Your task to perform on an android device: toggle data saver in the chrome app Image 0: 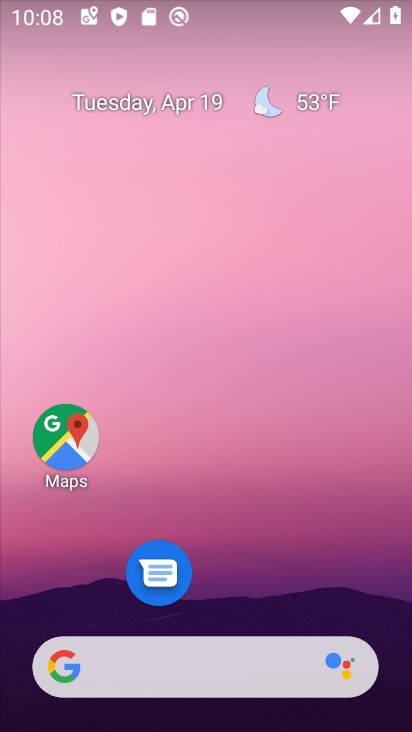
Step 0: drag from (239, 511) to (251, 74)
Your task to perform on an android device: toggle data saver in the chrome app Image 1: 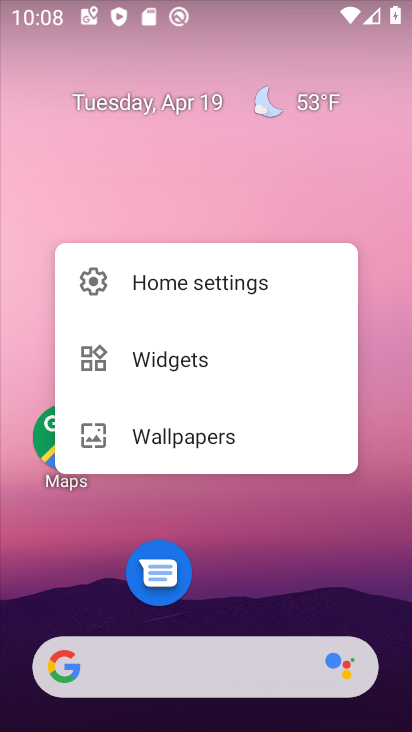
Step 1: click (253, 572)
Your task to perform on an android device: toggle data saver in the chrome app Image 2: 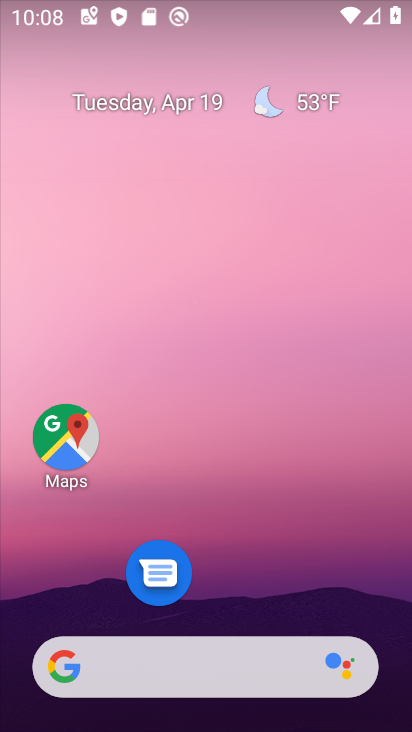
Step 2: drag from (249, 475) to (249, 60)
Your task to perform on an android device: toggle data saver in the chrome app Image 3: 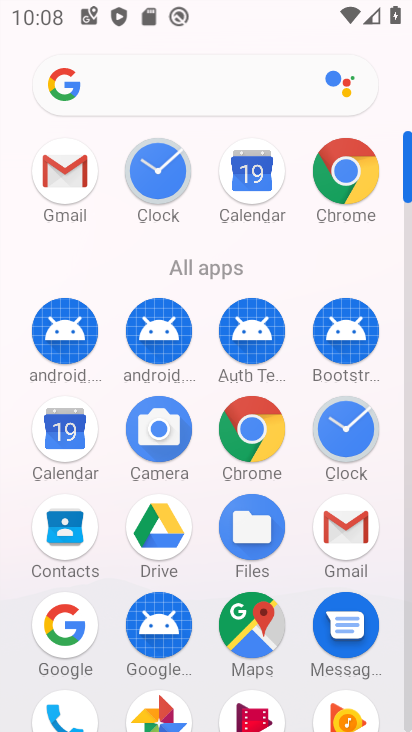
Step 3: click (344, 175)
Your task to perform on an android device: toggle data saver in the chrome app Image 4: 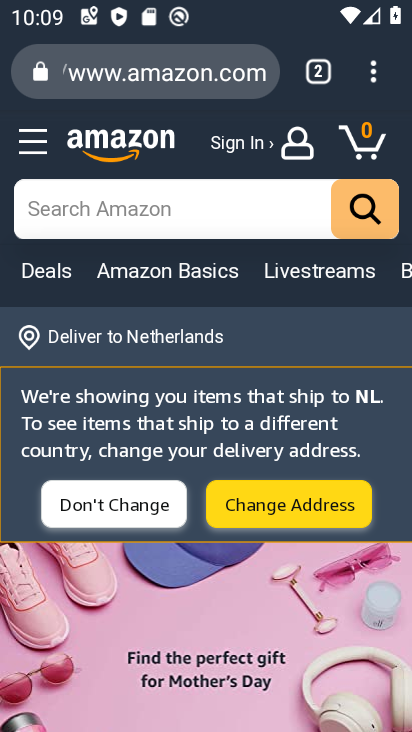
Step 4: click (372, 75)
Your task to perform on an android device: toggle data saver in the chrome app Image 5: 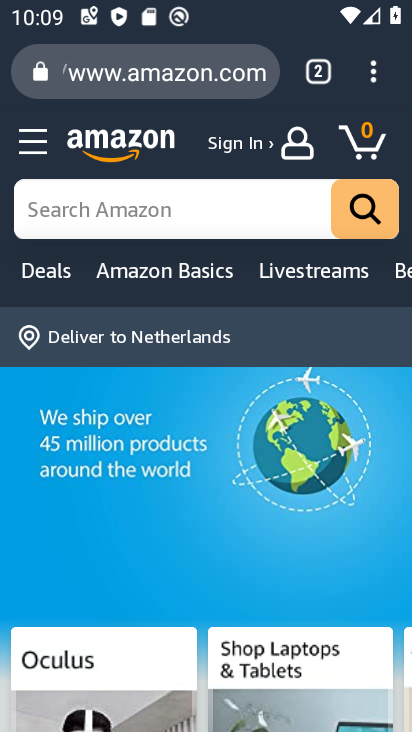
Step 5: click (375, 75)
Your task to perform on an android device: toggle data saver in the chrome app Image 6: 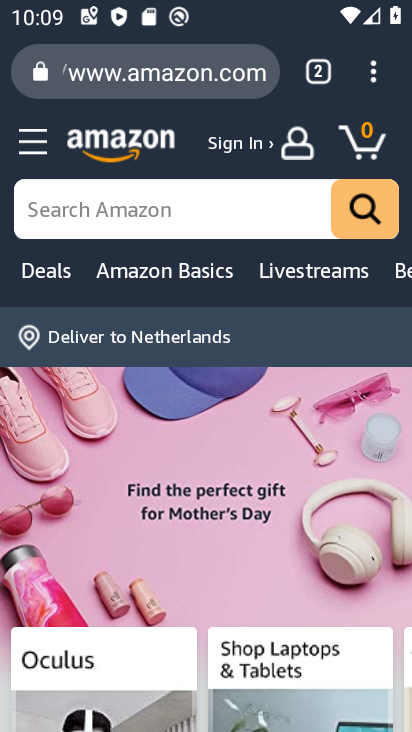
Step 6: drag from (370, 79) to (174, 581)
Your task to perform on an android device: toggle data saver in the chrome app Image 7: 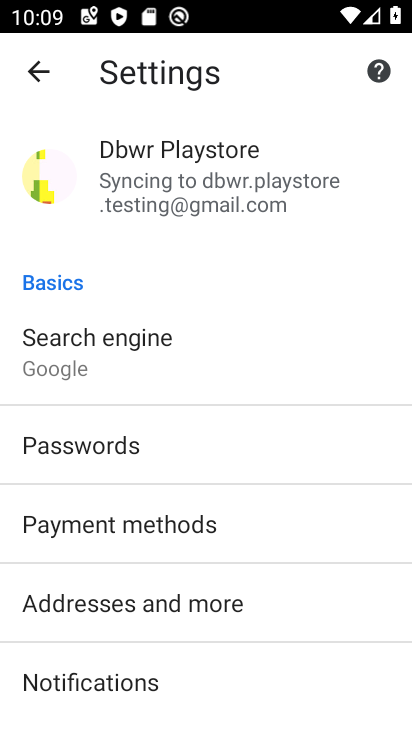
Step 7: drag from (246, 315) to (258, 161)
Your task to perform on an android device: toggle data saver in the chrome app Image 8: 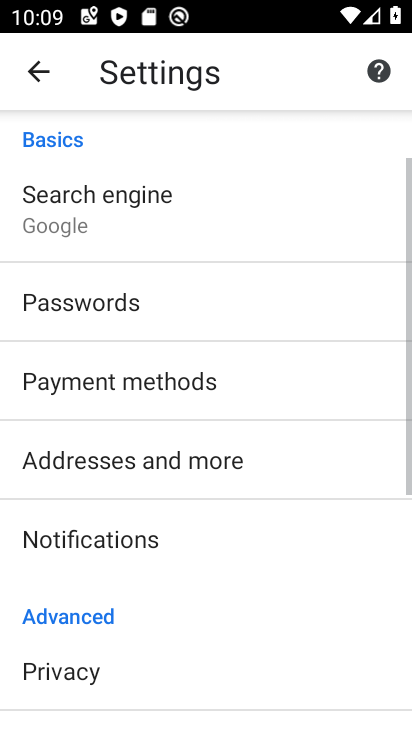
Step 8: drag from (203, 628) to (231, 223)
Your task to perform on an android device: toggle data saver in the chrome app Image 9: 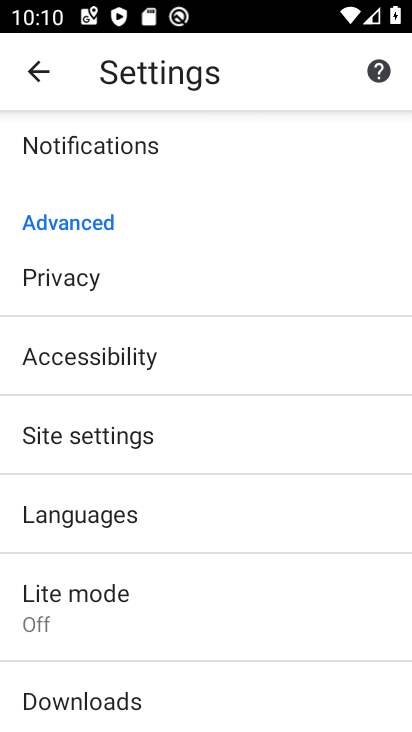
Step 9: click (158, 602)
Your task to perform on an android device: toggle data saver in the chrome app Image 10: 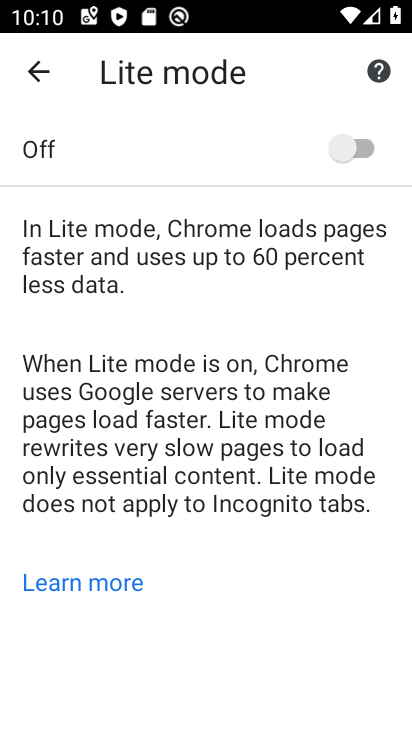
Step 10: click (367, 140)
Your task to perform on an android device: toggle data saver in the chrome app Image 11: 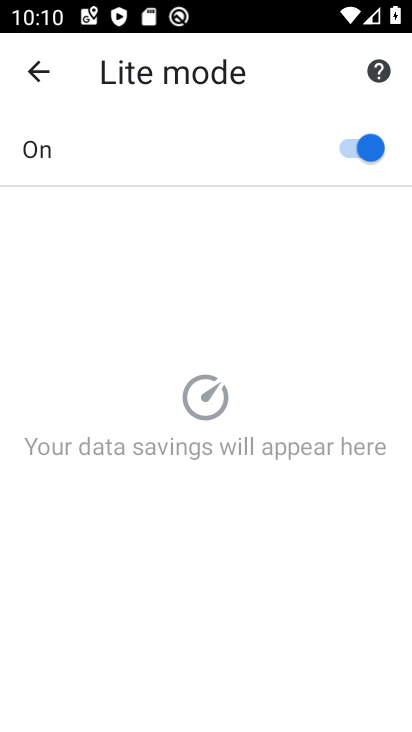
Step 11: task complete